Your task to perform on an android device: Open Google Maps Image 0: 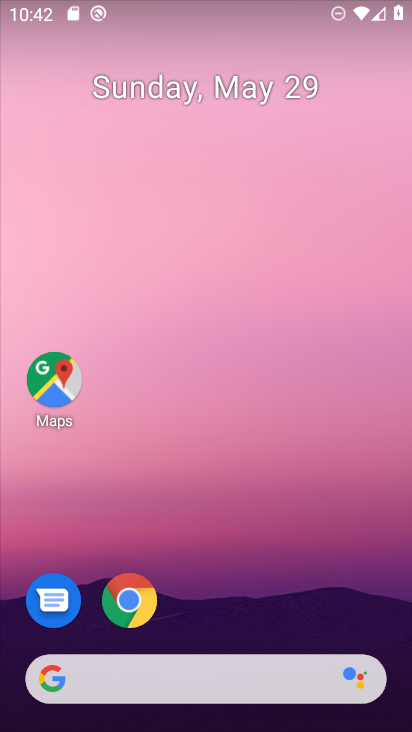
Step 0: drag from (221, 729) to (161, 176)
Your task to perform on an android device: Open Google Maps Image 1: 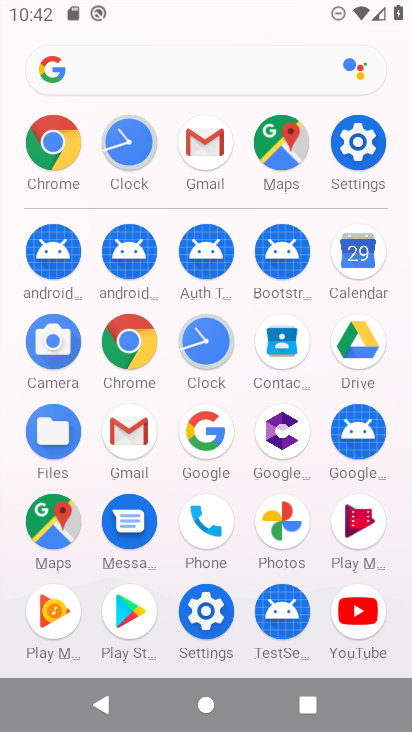
Step 1: click (50, 528)
Your task to perform on an android device: Open Google Maps Image 2: 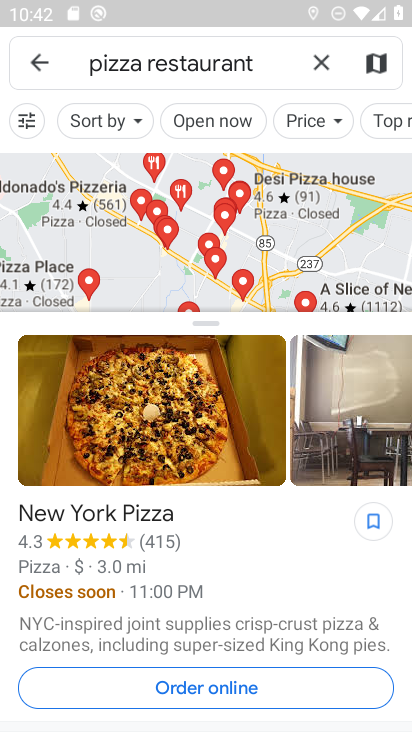
Step 2: task complete